Your task to perform on an android device: turn on wifi Image 0: 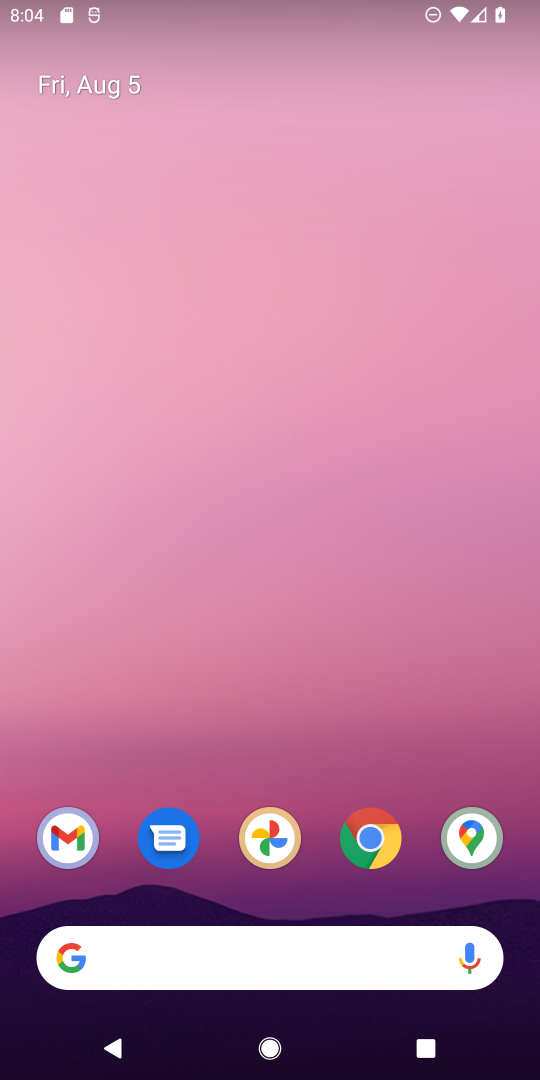
Step 0: drag from (297, 853) to (294, 408)
Your task to perform on an android device: turn on wifi Image 1: 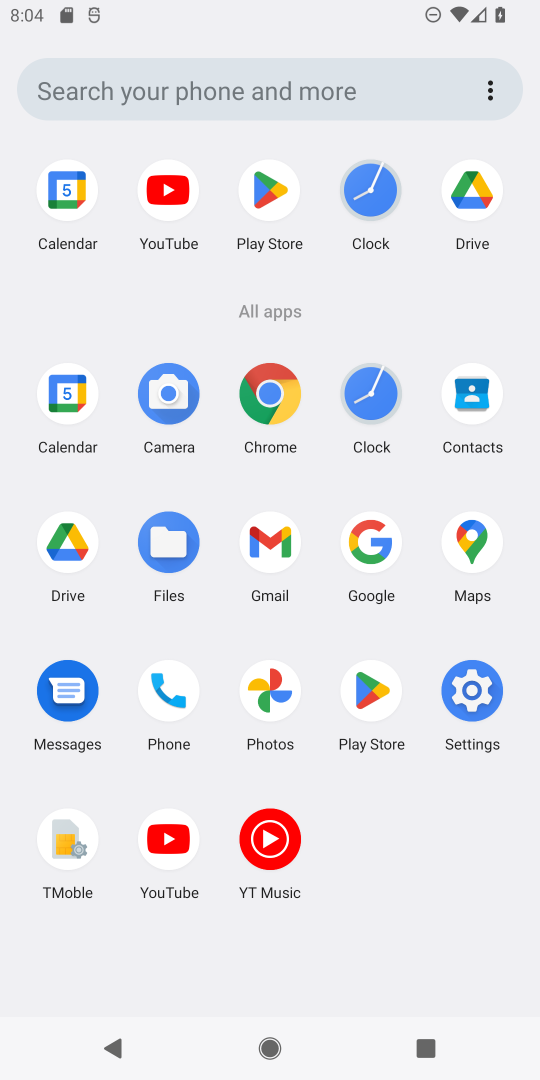
Step 1: click (475, 704)
Your task to perform on an android device: turn on wifi Image 2: 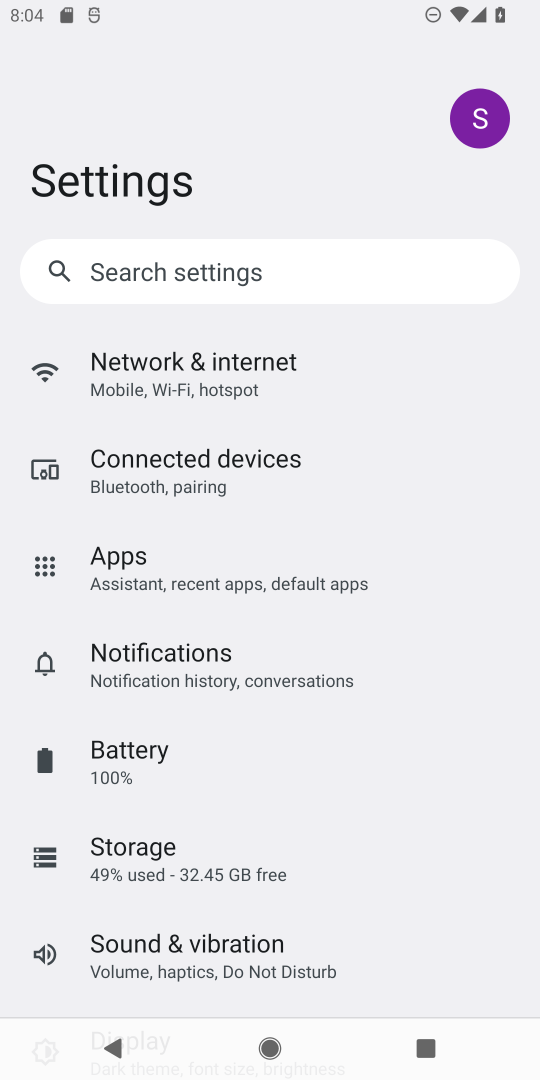
Step 2: click (145, 356)
Your task to perform on an android device: turn on wifi Image 3: 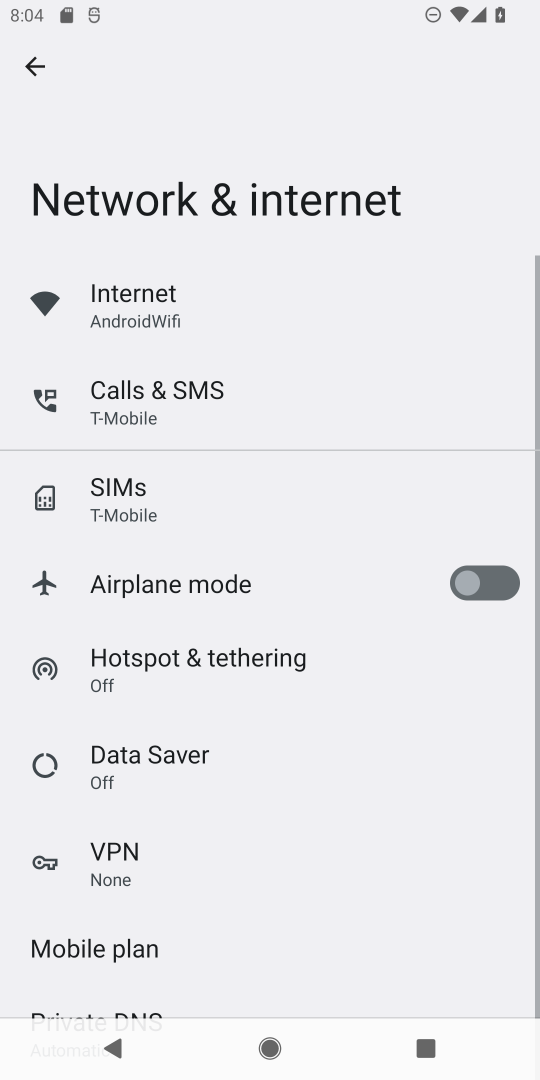
Step 3: click (161, 325)
Your task to perform on an android device: turn on wifi Image 4: 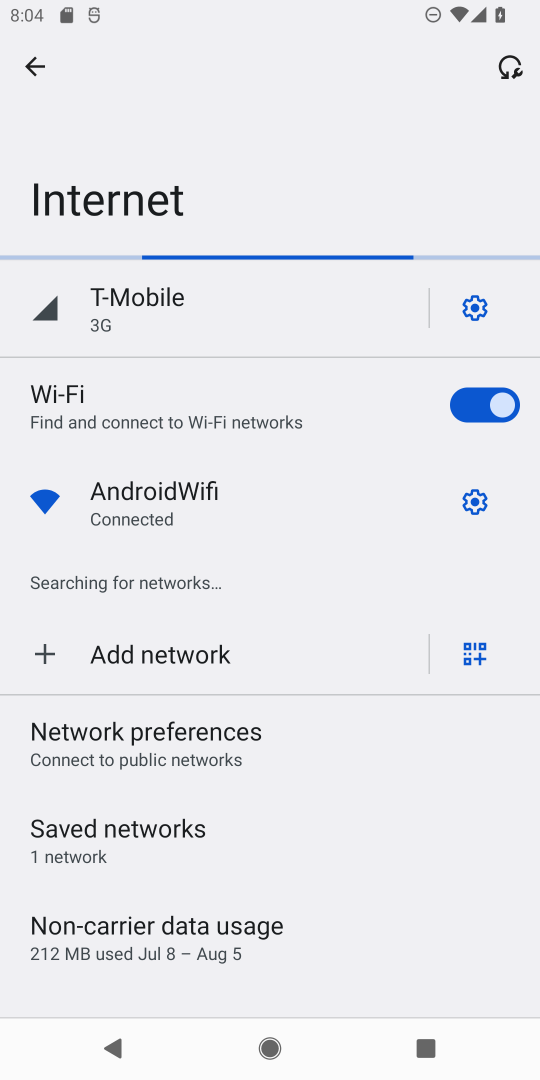
Step 4: task complete